Your task to perform on an android device: Go to network settings Image 0: 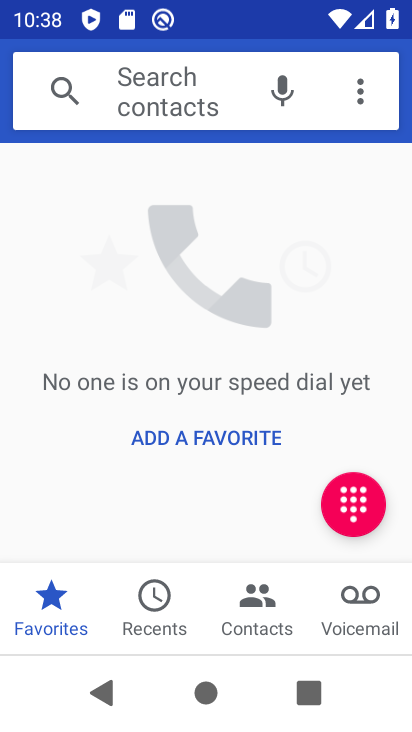
Step 0: press back button
Your task to perform on an android device: Go to network settings Image 1: 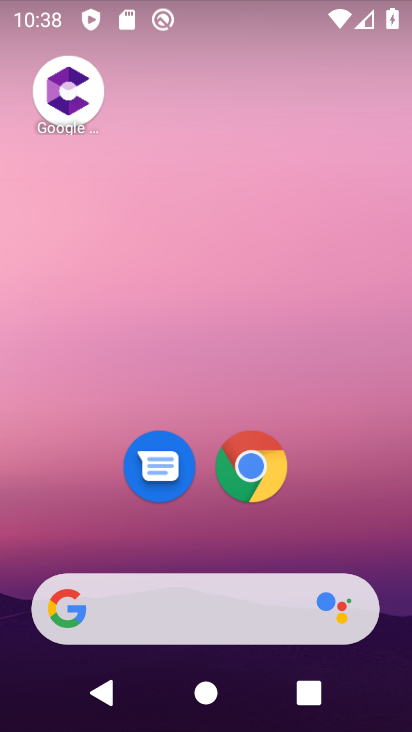
Step 1: drag from (244, 515) to (228, 47)
Your task to perform on an android device: Go to network settings Image 2: 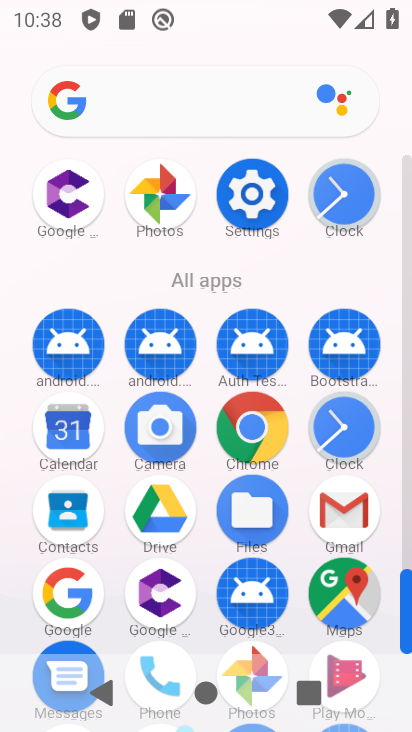
Step 2: click (251, 187)
Your task to perform on an android device: Go to network settings Image 3: 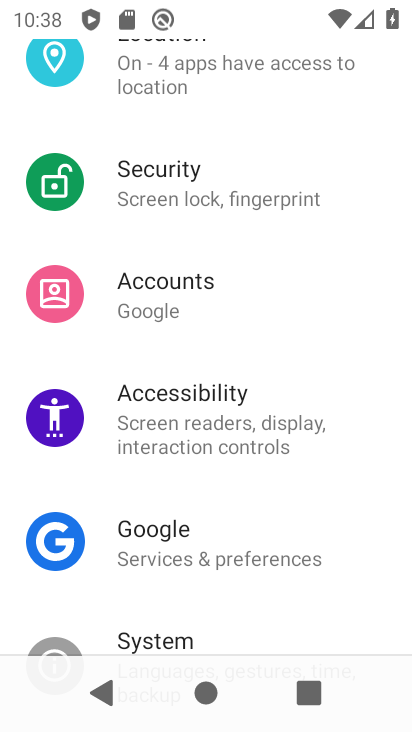
Step 3: drag from (209, 167) to (180, 614)
Your task to perform on an android device: Go to network settings Image 4: 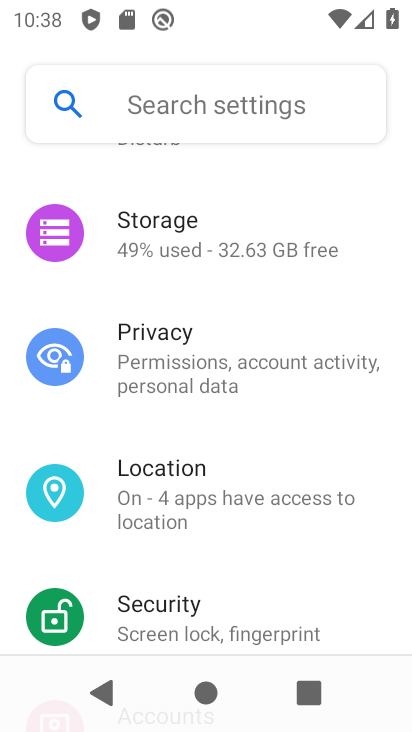
Step 4: drag from (208, 287) to (193, 688)
Your task to perform on an android device: Go to network settings Image 5: 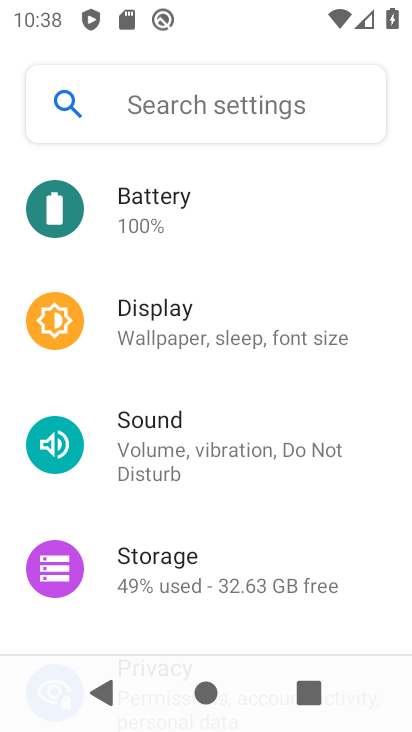
Step 5: drag from (218, 242) to (162, 670)
Your task to perform on an android device: Go to network settings Image 6: 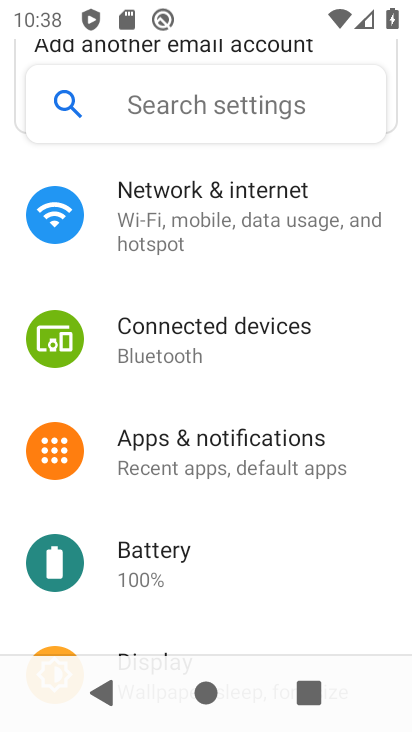
Step 6: click (176, 197)
Your task to perform on an android device: Go to network settings Image 7: 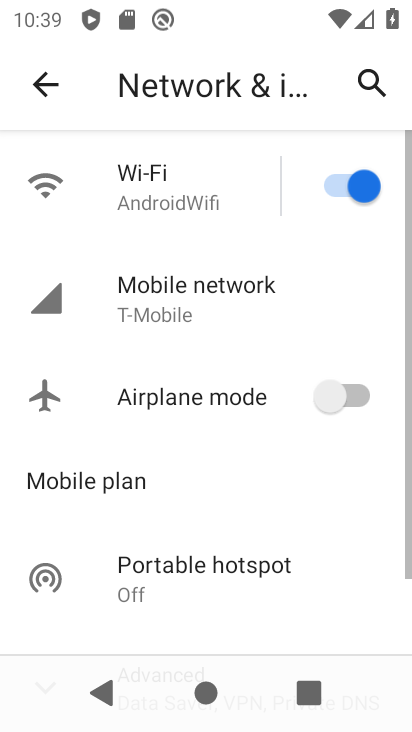
Step 7: task complete